Your task to perform on an android device: Turn off the flashlight Image 0: 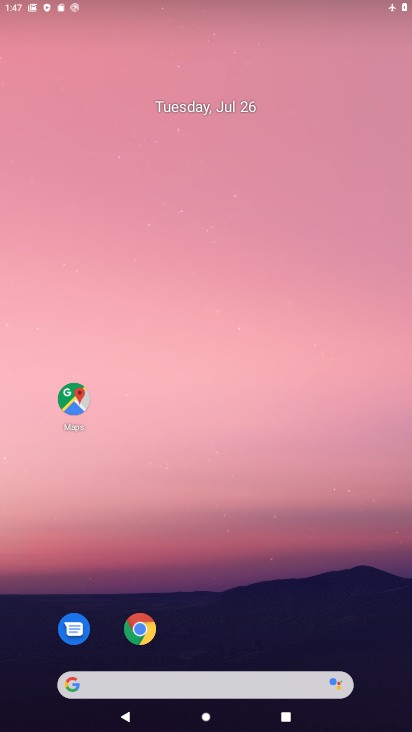
Step 0: drag from (203, 604) to (206, 377)
Your task to perform on an android device: Turn off the flashlight Image 1: 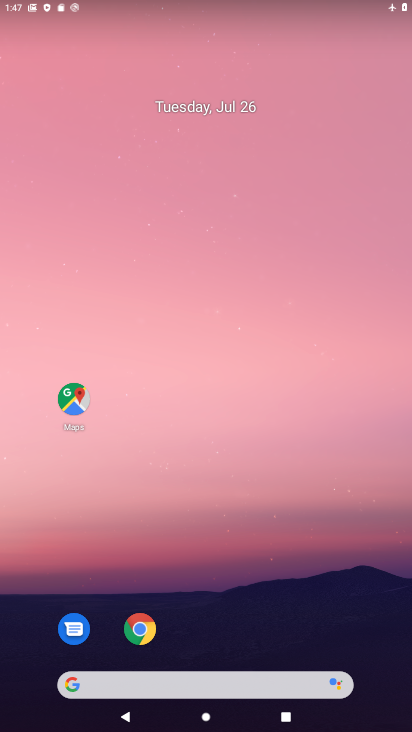
Step 1: drag from (245, 671) to (234, 195)
Your task to perform on an android device: Turn off the flashlight Image 2: 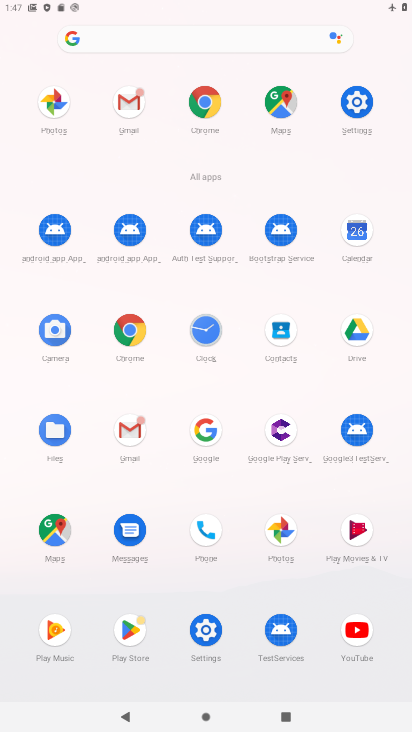
Step 2: drag from (240, 62) to (179, 574)
Your task to perform on an android device: Turn off the flashlight Image 3: 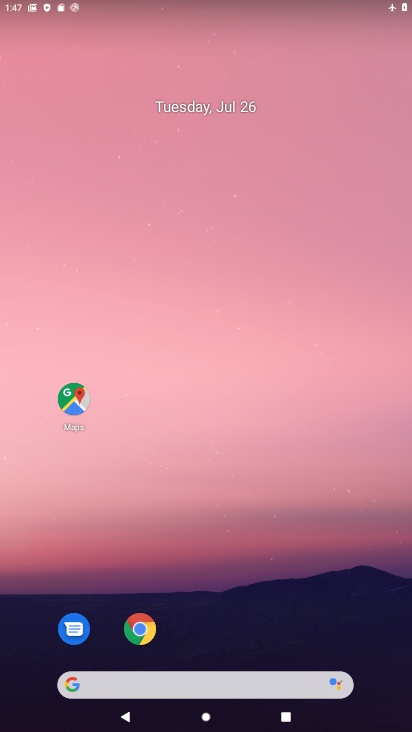
Step 3: drag from (216, 2) to (224, 527)
Your task to perform on an android device: Turn off the flashlight Image 4: 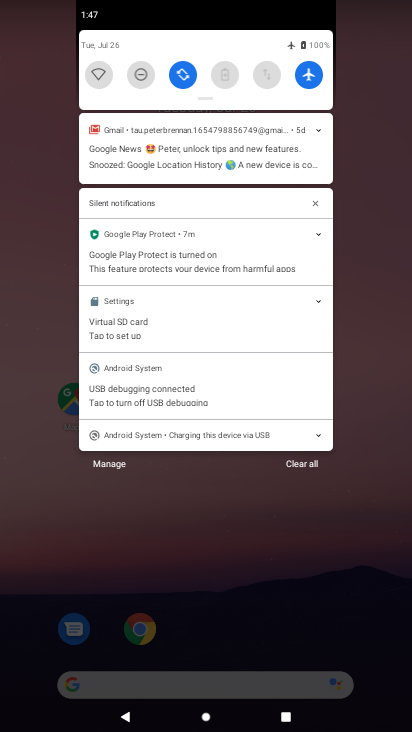
Step 4: drag from (195, 68) to (195, 456)
Your task to perform on an android device: Turn off the flashlight Image 5: 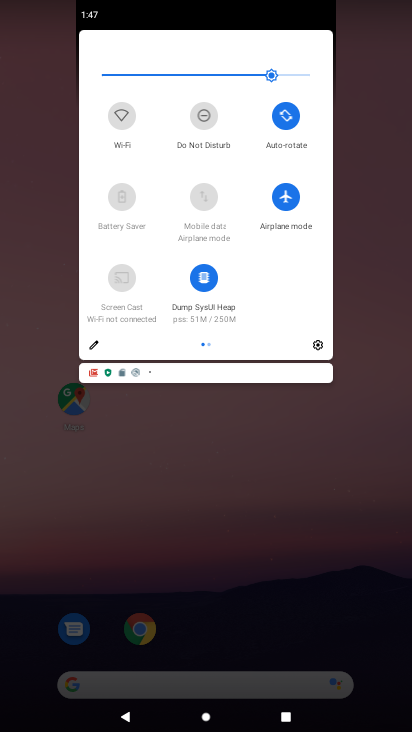
Step 5: click (315, 342)
Your task to perform on an android device: Turn off the flashlight Image 6: 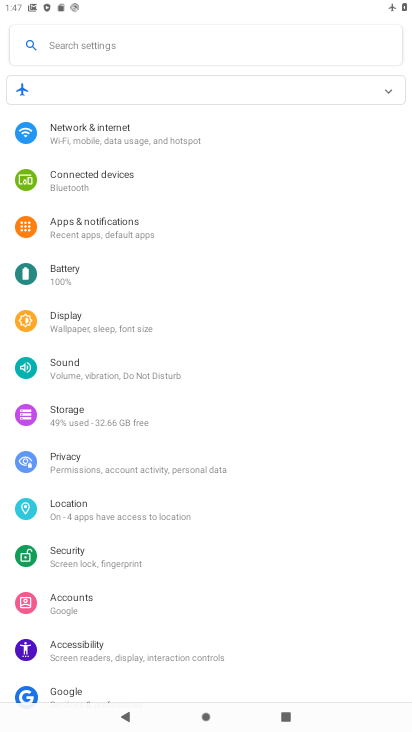
Step 6: task complete